Your task to perform on an android device: toggle pop-ups in chrome Image 0: 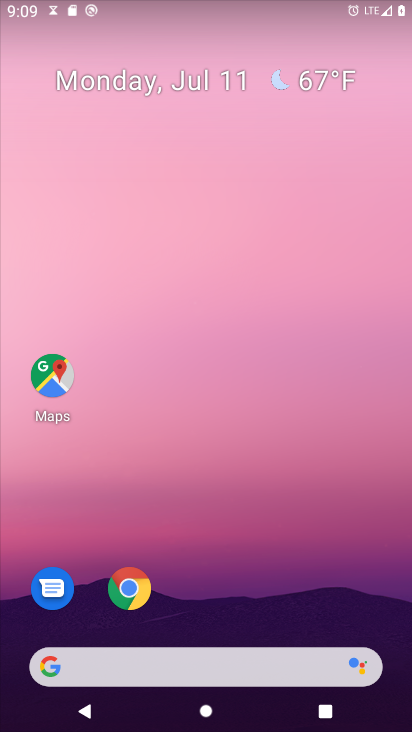
Step 0: click (121, 592)
Your task to perform on an android device: toggle pop-ups in chrome Image 1: 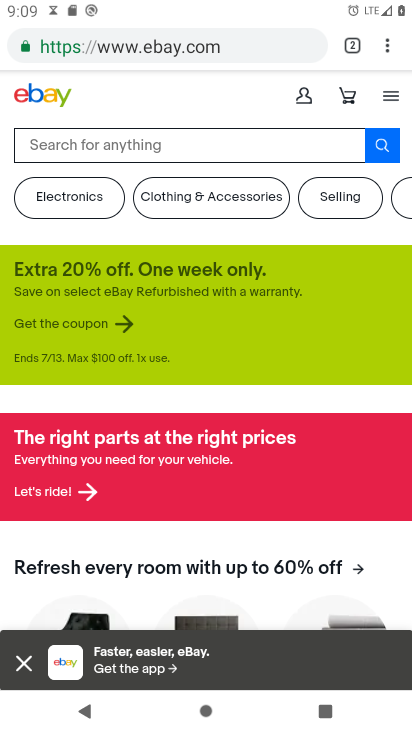
Step 1: click (384, 41)
Your task to perform on an android device: toggle pop-ups in chrome Image 2: 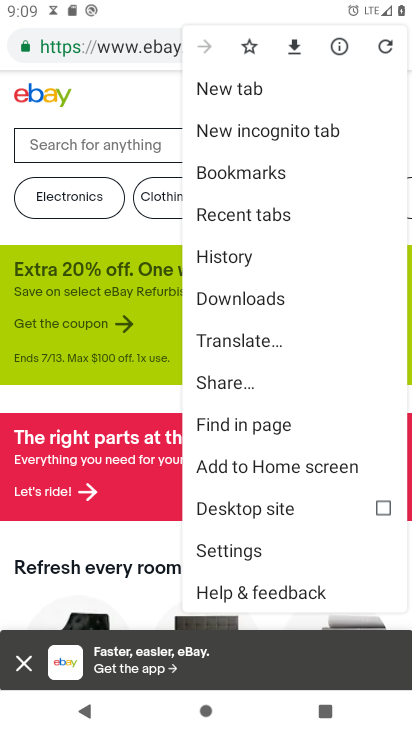
Step 2: click (231, 552)
Your task to perform on an android device: toggle pop-ups in chrome Image 3: 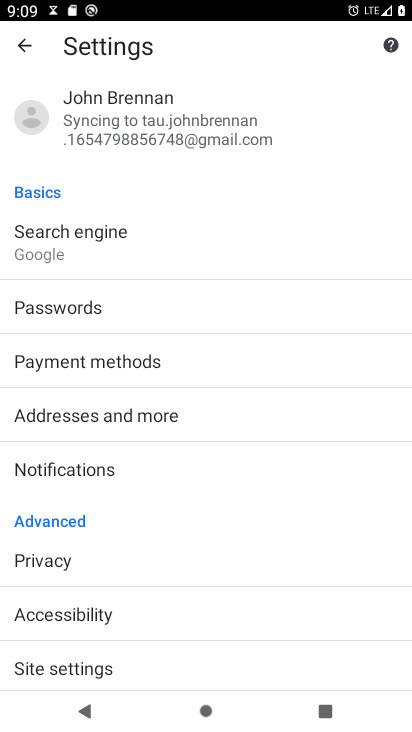
Step 3: click (58, 659)
Your task to perform on an android device: toggle pop-ups in chrome Image 4: 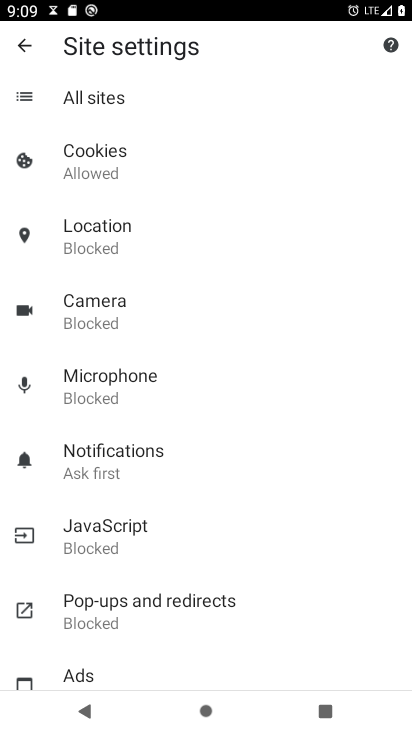
Step 4: click (131, 622)
Your task to perform on an android device: toggle pop-ups in chrome Image 5: 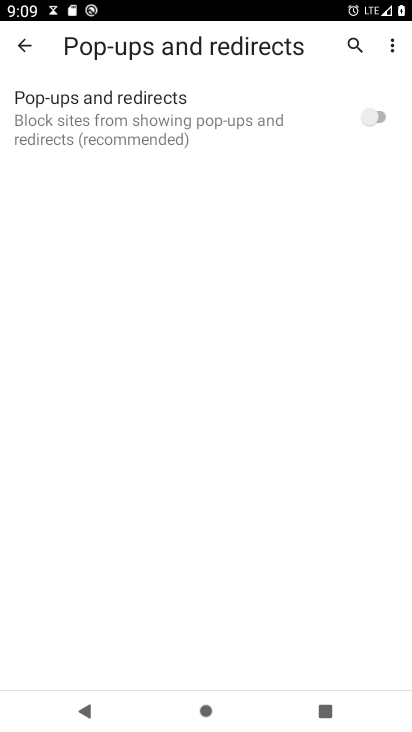
Step 5: click (377, 112)
Your task to perform on an android device: toggle pop-ups in chrome Image 6: 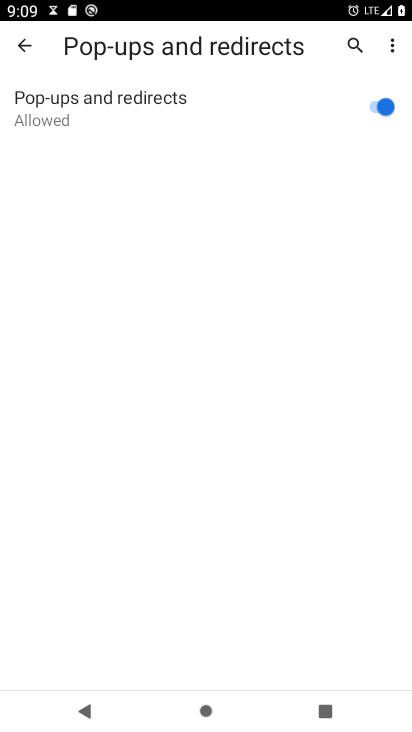
Step 6: task complete